Your task to perform on an android device: change the upload size in google photos Image 0: 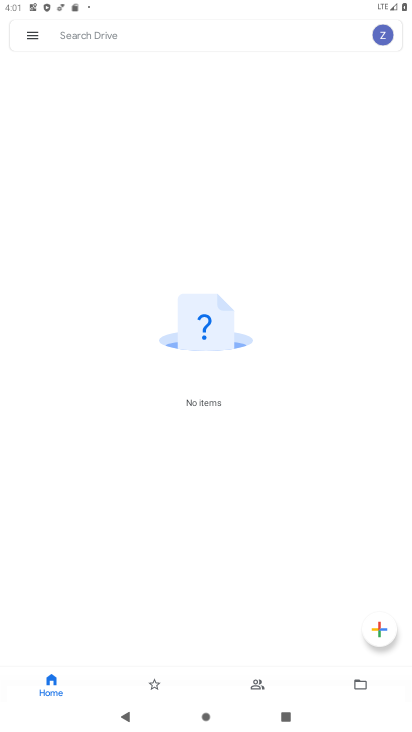
Step 0: press home button
Your task to perform on an android device: change the upload size in google photos Image 1: 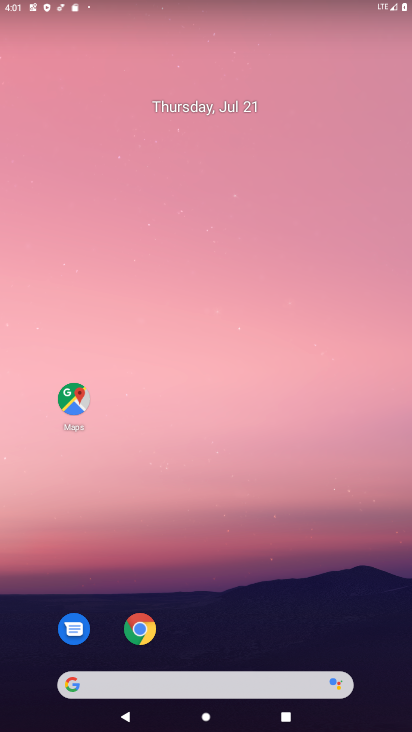
Step 1: drag from (351, 620) to (293, 176)
Your task to perform on an android device: change the upload size in google photos Image 2: 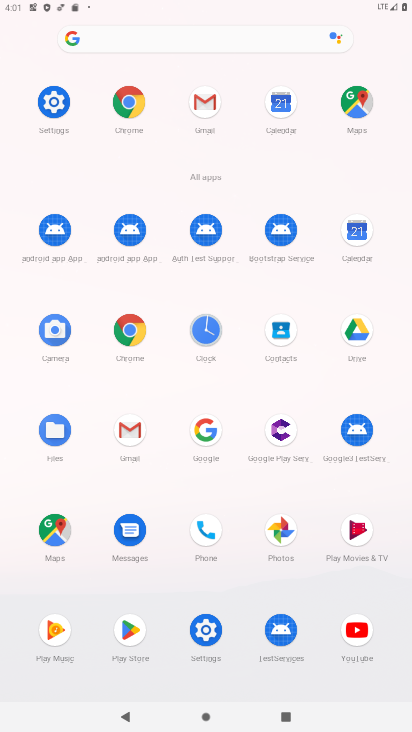
Step 2: click (278, 527)
Your task to perform on an android device: change the upload size in google photos Image 3: 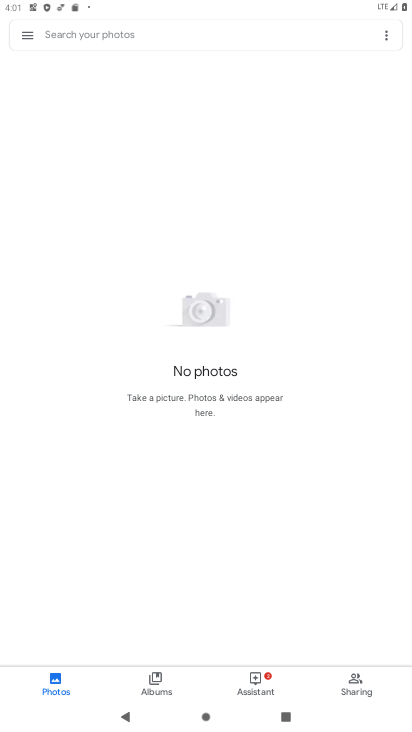
Step 3: click (29, 32)
Your task to perform on an android device: change the upload size in google photos Image 4: 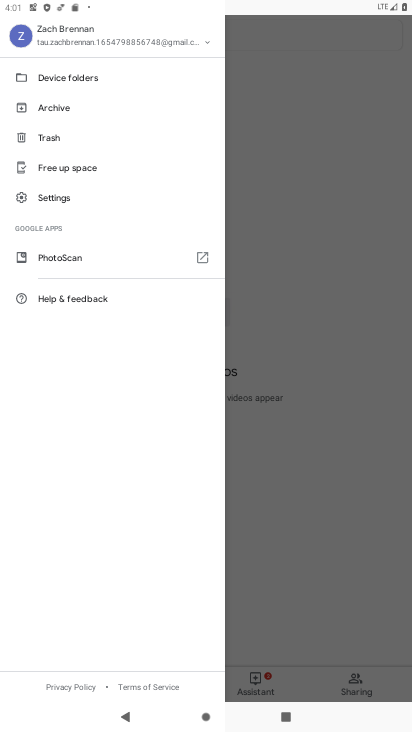
Step 4: click (59, 207)
Your task to perform on an android device: change the upload size in google photos Image 5: 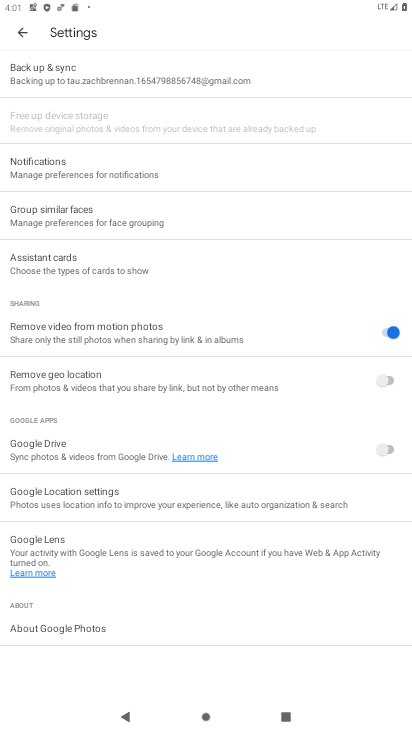
Step 5: click (74, 84)
Your task to perform on an android device: change the upload size in google photos Image 6: 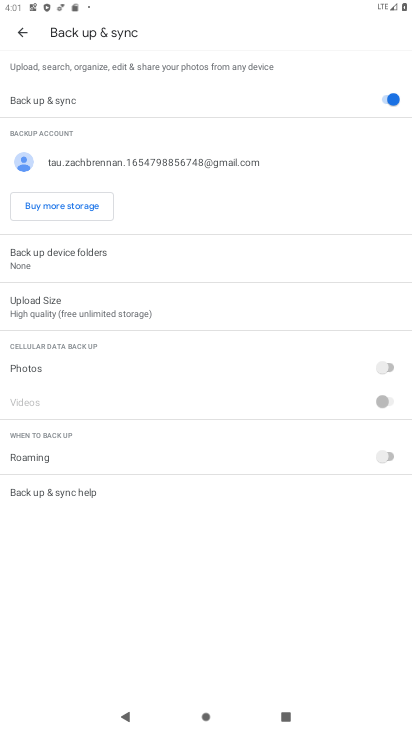
Step 6: click (71, 314)
Your task to perform on an android device: change the upload size in google photos Image 7: 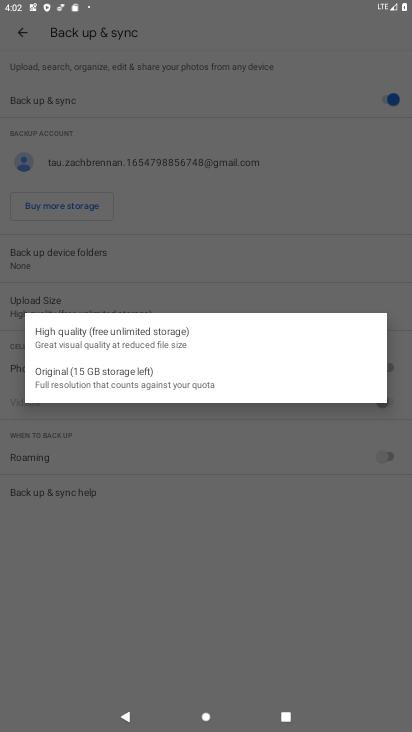
Step 7: click (89, 369)
Your task to perform on an android device: change the upload size in google photos Image 8: 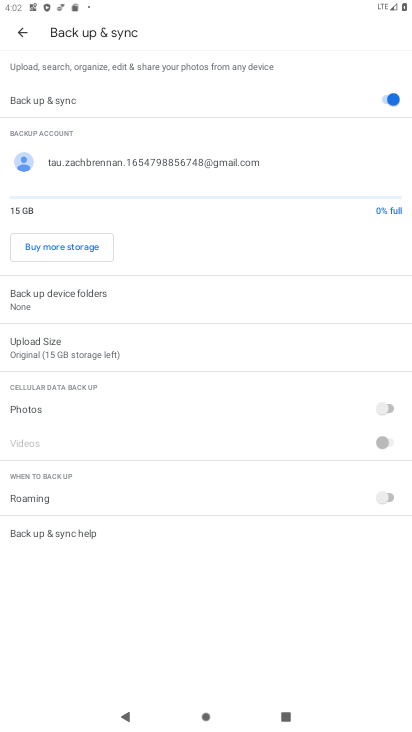
Step 8: task complete